Your task to perform on an android device: turn off improve location accuracy Image 0: 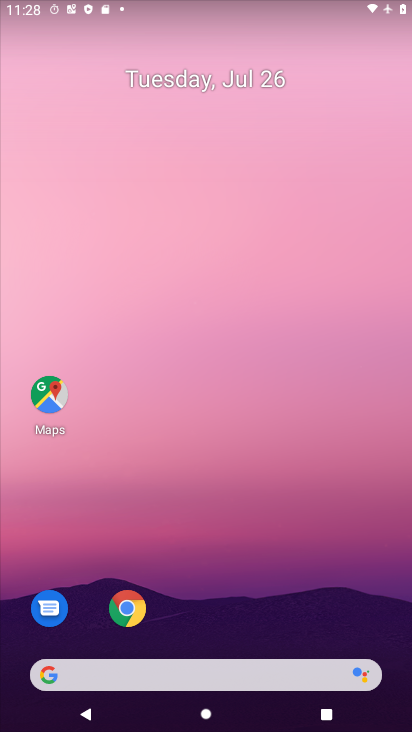
Step 0: drag from (240, 583) to (237, 23)
Your task to perform on an android device: turn off improve location accuracy Image 1: 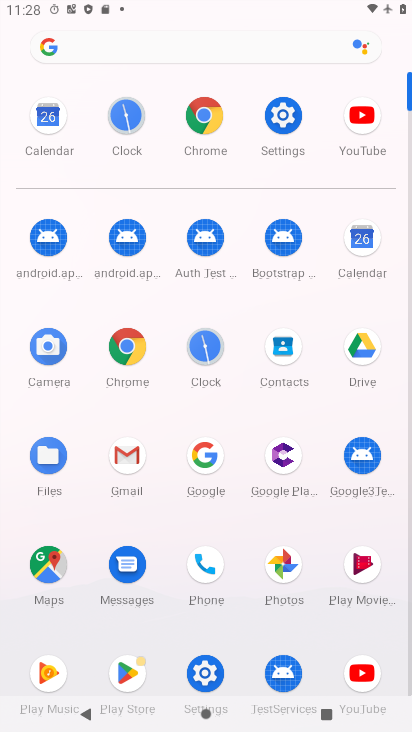
Step 1: click (281, 138)
Your task to perform on an android device: turn off improve location accuracy Image 2: 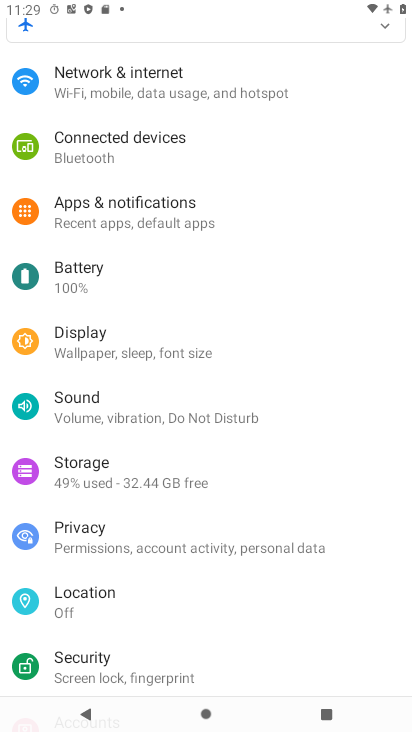
Step 2: click (125, 595)
Your task to perform on an android device: turn off improve location accuracy Image 3: 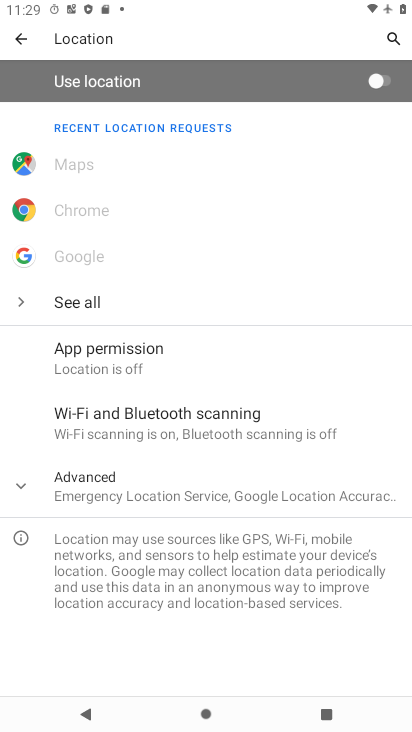
Step 3: click (169, 483)
Your task to perform on an android device: turn off improve location accuracy Image 4: 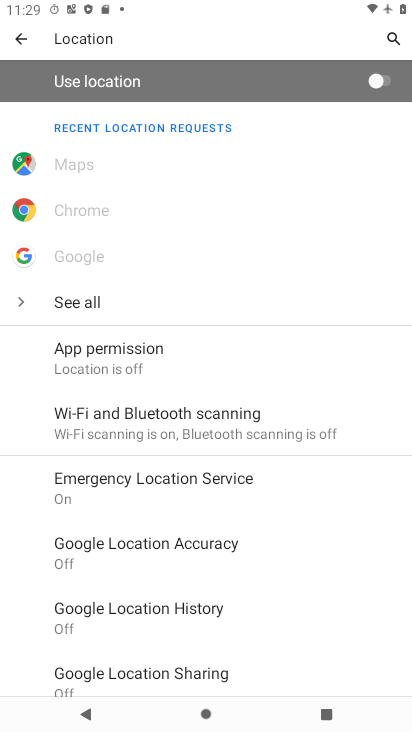
Step 4: click (179, 548)
Your task to perform on an android device: turn off improve location accuracy Image 5: 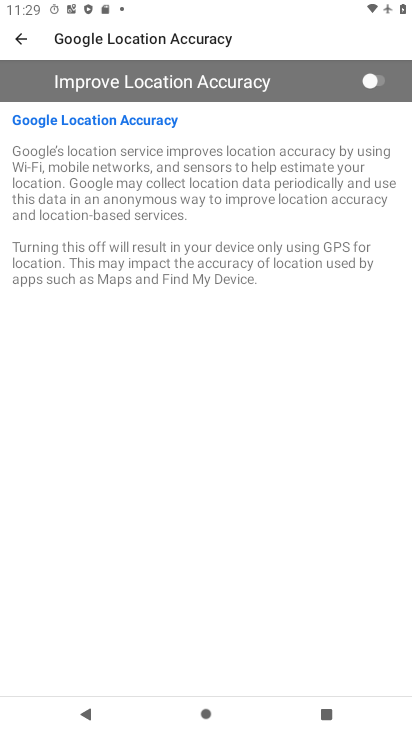
Step 5: task complete